Your task to perform on an android device: Open Wikipedia Image 0: 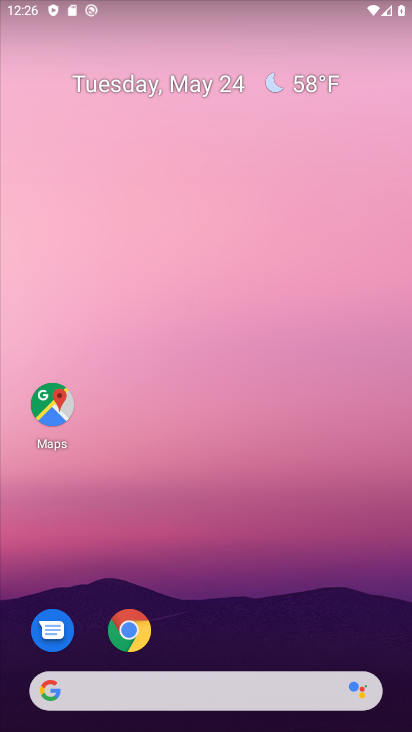
Step 0: click (128, 629)
Your task to perform on an android device: Open Wikipedia Image 1: 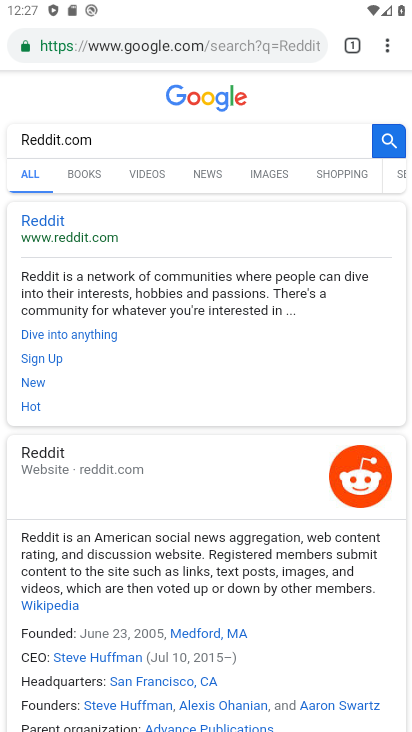
Step 1: click (266, 46)
Your task to perform on an android device: Open Wikipedia Image 2: 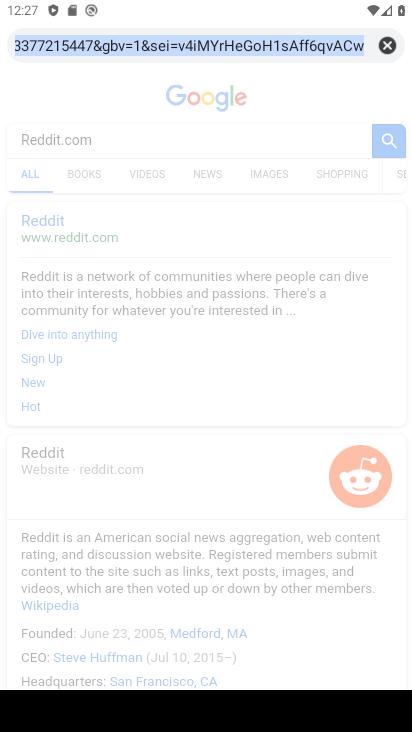
Step 2: click (378, 40)
Your task to perform on an android device: Open Wikipedia Image 3: 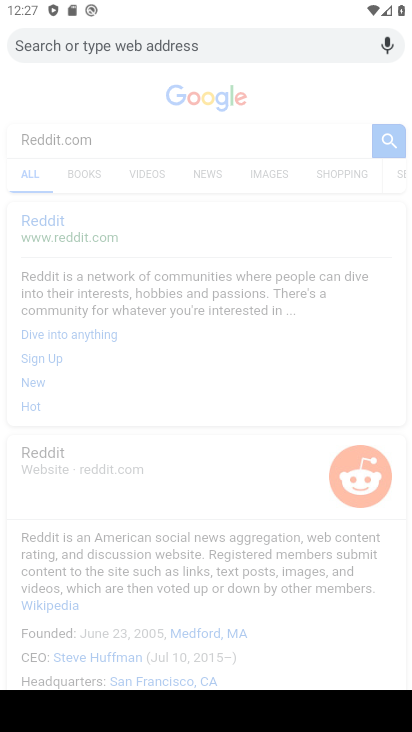
Step 3: type "Wikipedia"
Your task to perform on an android device: Open Wikipedia Image 4: 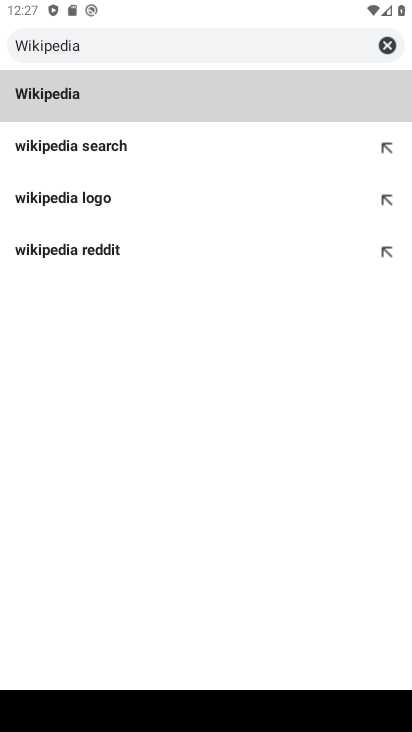
Step 4: click (158, 95)
Your task to perform on an android device: Open Wikipedia Image 5: 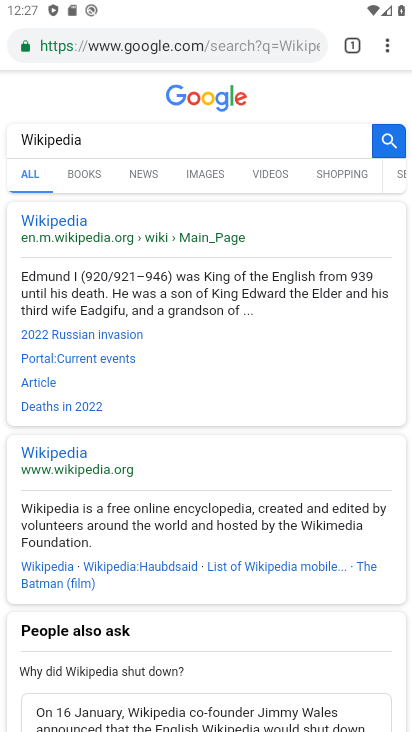
Step 5: click (94, 237)
Your task to perform on an android device: Open Wikipedia Image 6: 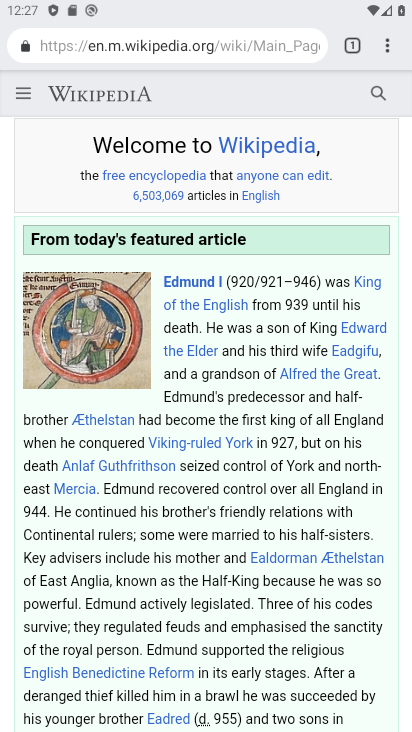
Step 6: task complete